Your task to perform on an android device: remove spam from my inbox in the gmail app Image 0: 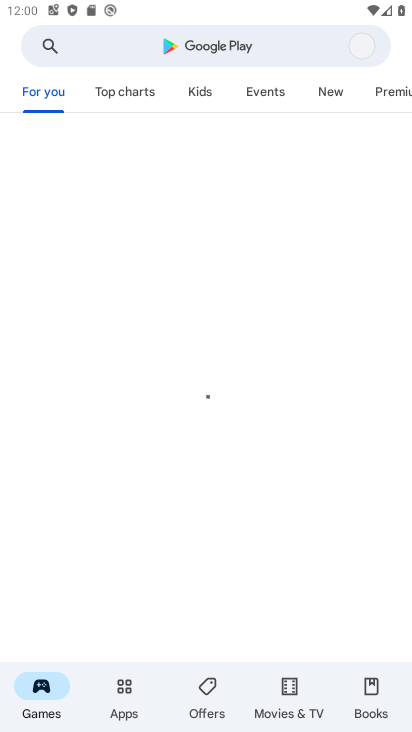
Step 0: press home button
Your task to perform on an android device: remove spam from my inbox in the gmail app Image 1: 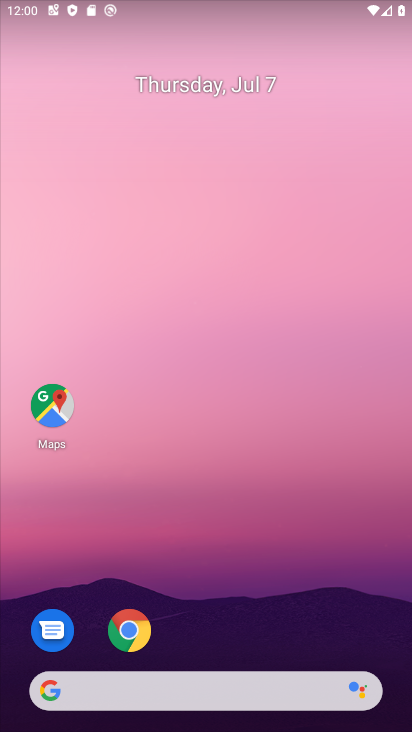
Step 1: drag from (199, 542) to (10, 324)
Your task to perform on an android device: remove spam from my inbox in the gmail app Image 2: 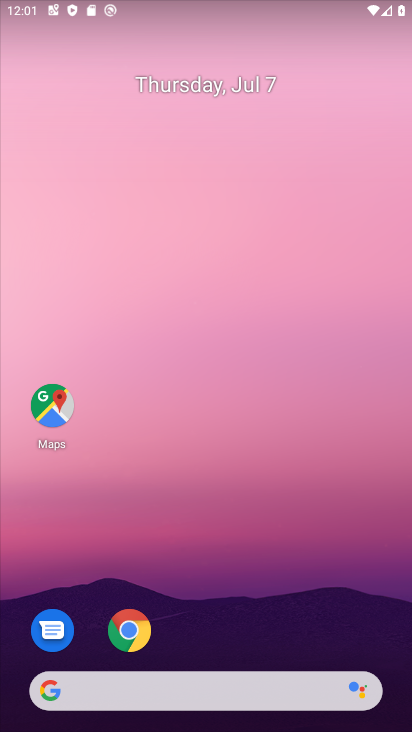
Step 2: drag from (216, 632) to (234, 8)
Your task to perform on an android device: remove spam from my inbox in the gmail app Image 3: 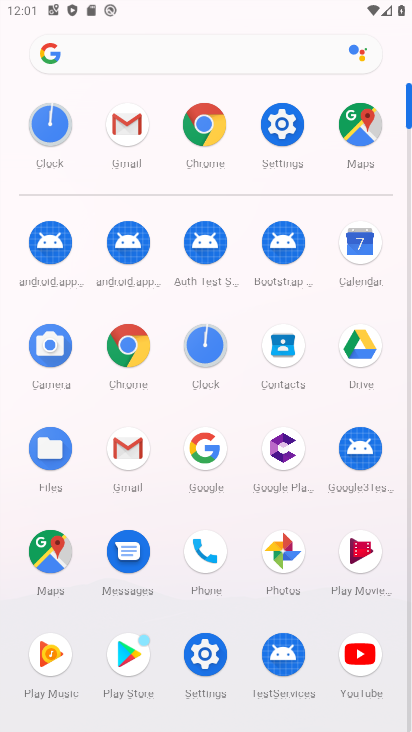
Step 3: click (129, 444)
Your task to perform on an android device: remove spam from my inbox in the gmail app Image 4: 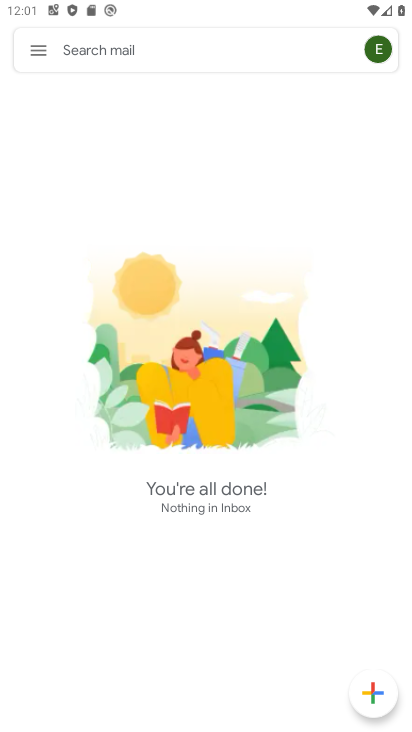
Step 4: click (46, 45)
Your task to perform on an android device: remove spam from my inbox in the gmail app Image 5: 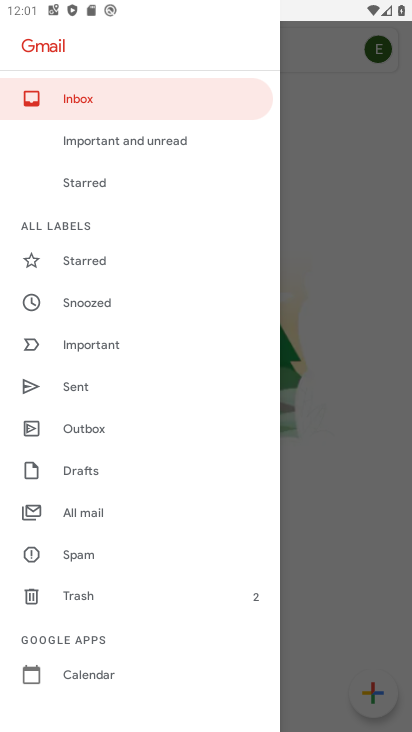
Step 5: click (89, 550)
Your task to perform on an android device: remove spam from my inbox in the gmail app Image 6: 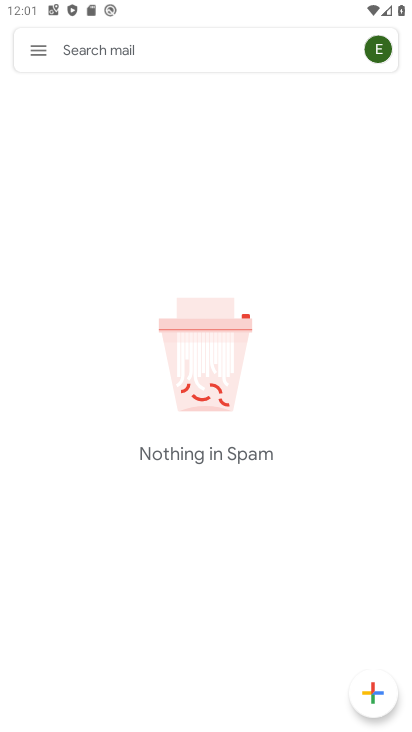
Step 6: task complete